Your task to perform on an android device: Open Google Chrome and click the shortcut for Amazon.com Image 0: 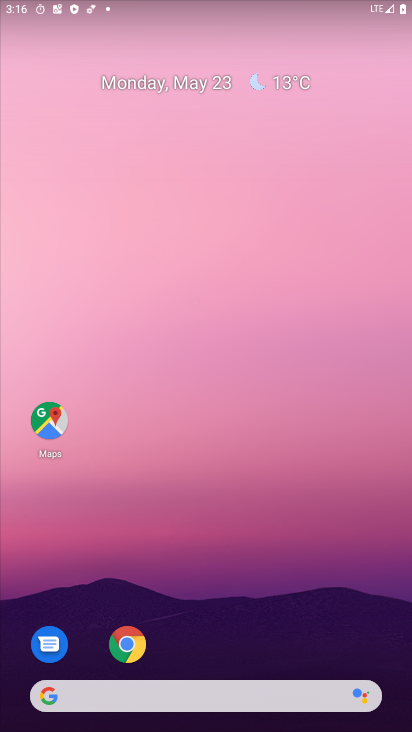
Step 0: click (129, 654)
Your task to perform on an android device: Open Google Chrome and click the shortcut for Amazon.com Image 1: 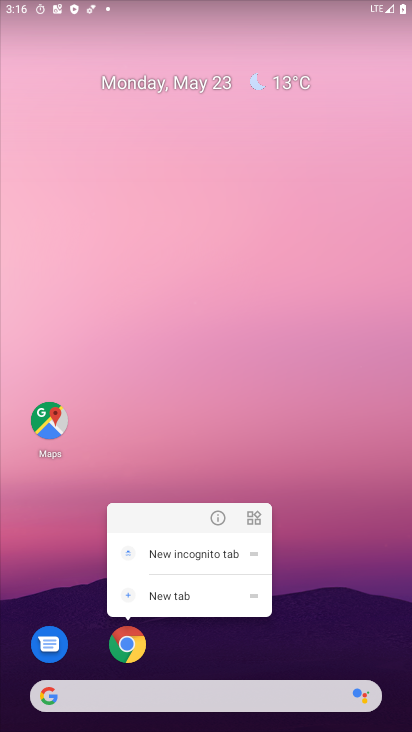
Step 1: click (134, 650)
Your task to perform on an android device: Open Google Chrome and click the shortcut for Amazon.com Image 2: 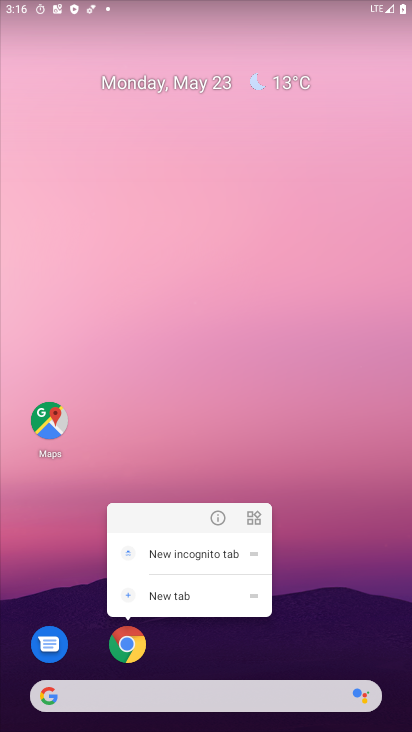
Step 2: click (131, 643)
Your task to perform on an android device: Open Google Chrome and click the shortcut for Amazon.com Image 3: 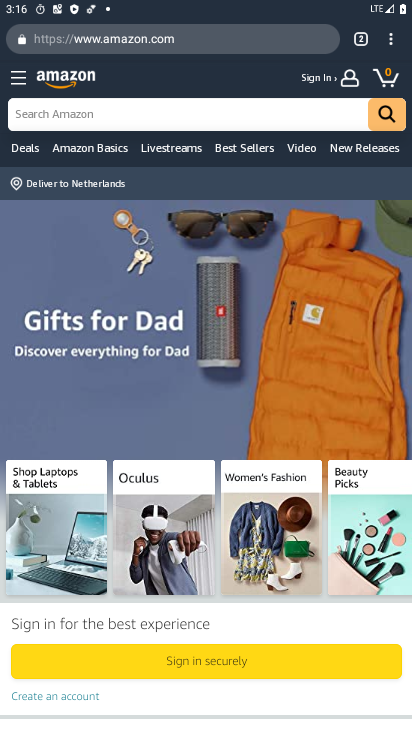
Step 3: task complete